Your task to perform on an android device: Open battery settings Image 0: 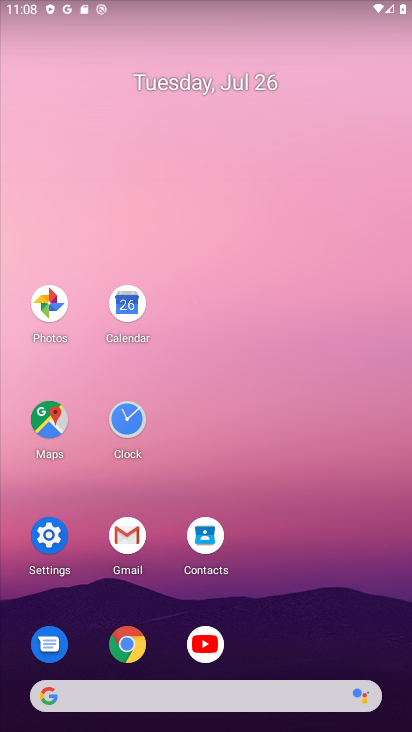
Step 0: click (43, 538)
Your task to perform on an android device: Open battery settings Image 1: 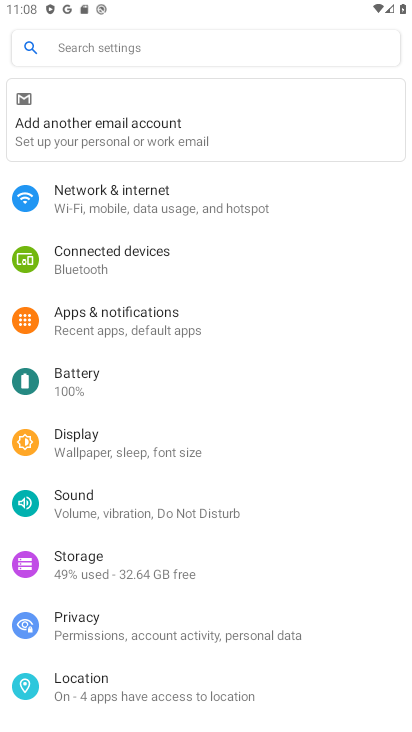
Step 1: click (67, 372)
Your task to perform on an android device: Open battery settings Image 2: 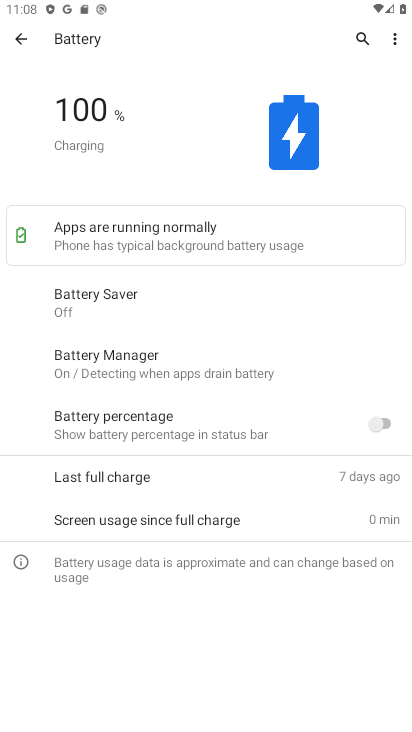
Step 2: task complete